Your task to perform on an android device: turn on location history Image 0: 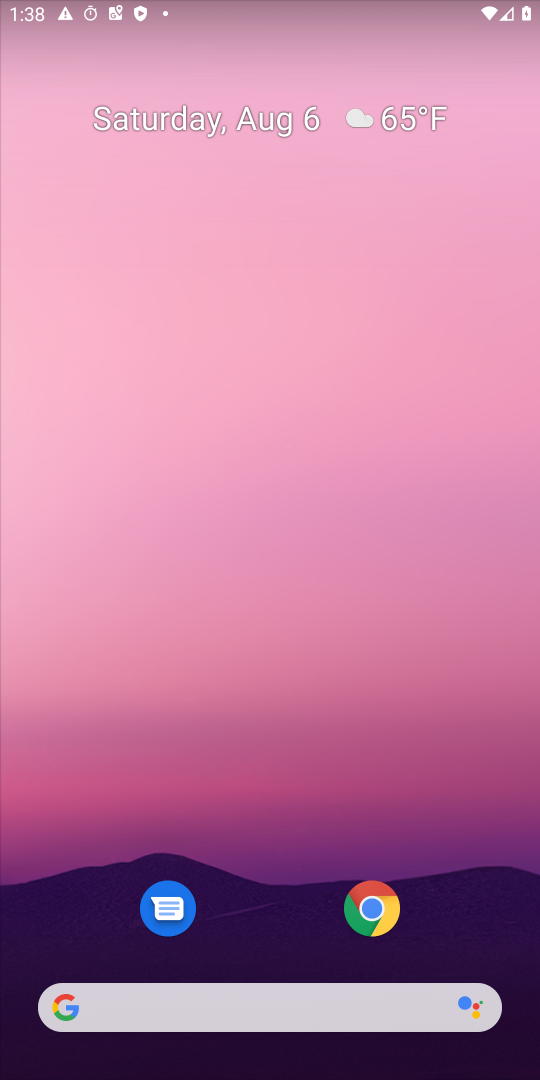
Step 0: drag from (259, 874) to (256, 114)
Your task to perform on an android device: turn on location history Image 1: 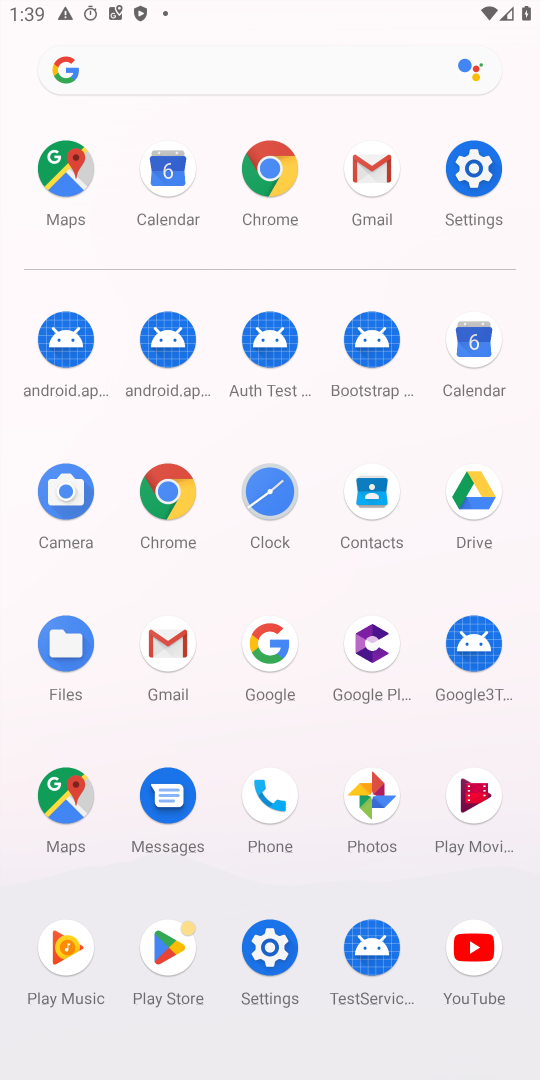
Step 1: click (266, 953)
Your task to perform on an android device: turn on location history Image 2: 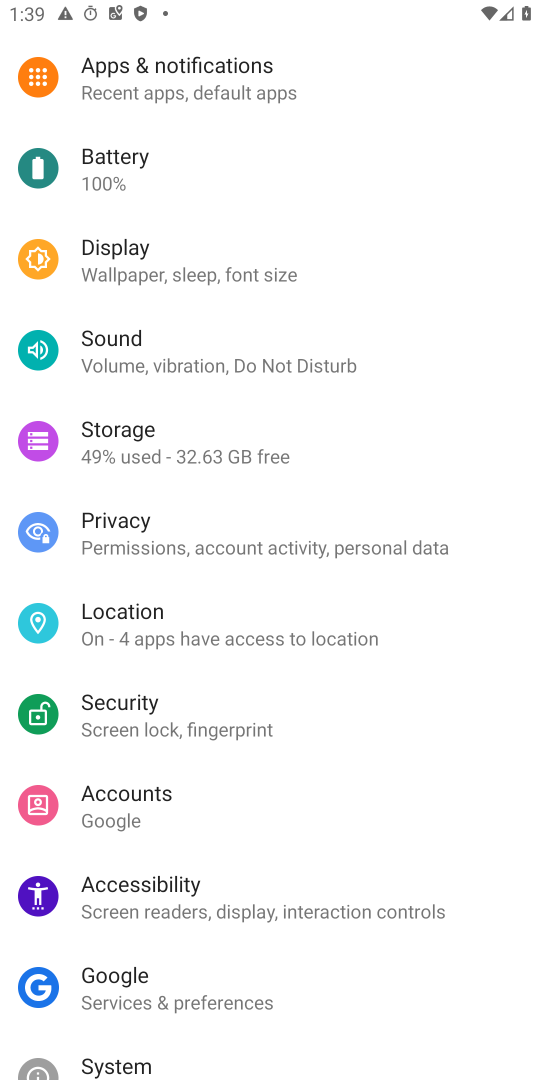
Step 2: click (137, 638)
Your task to perform on an android device: turn on location history Image 3: 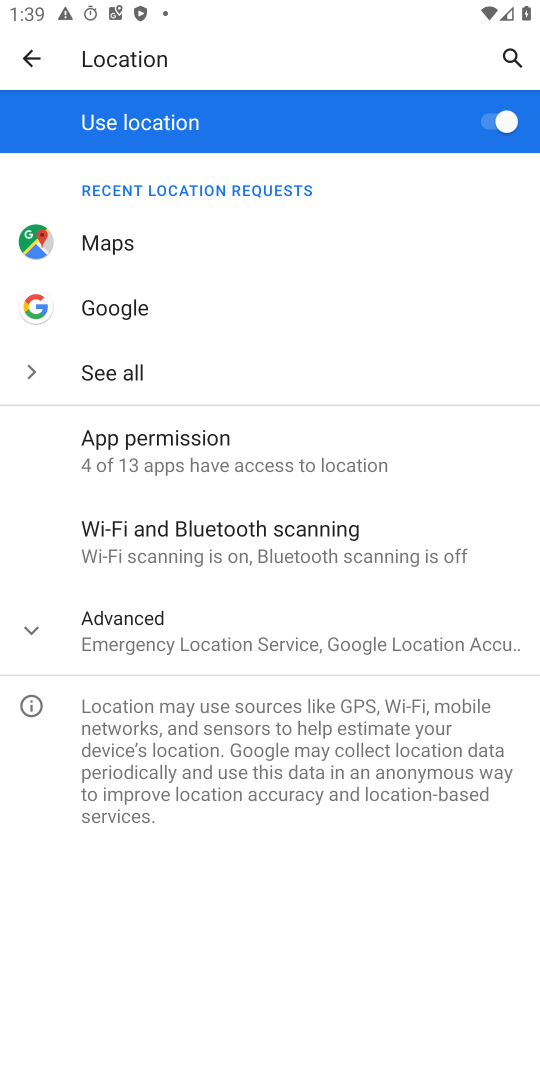
Step 3: click (274, 637)
Your task to perform on an android device: turn on location history Image 4: 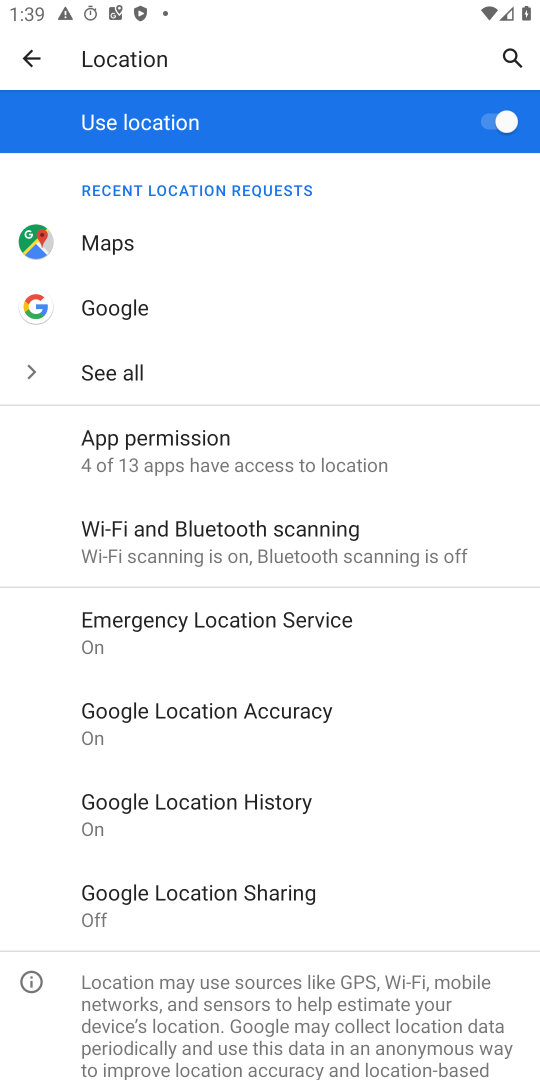
Step 4: click (258, 809)
Your task to perform on an android device: turn on location history Image 5: 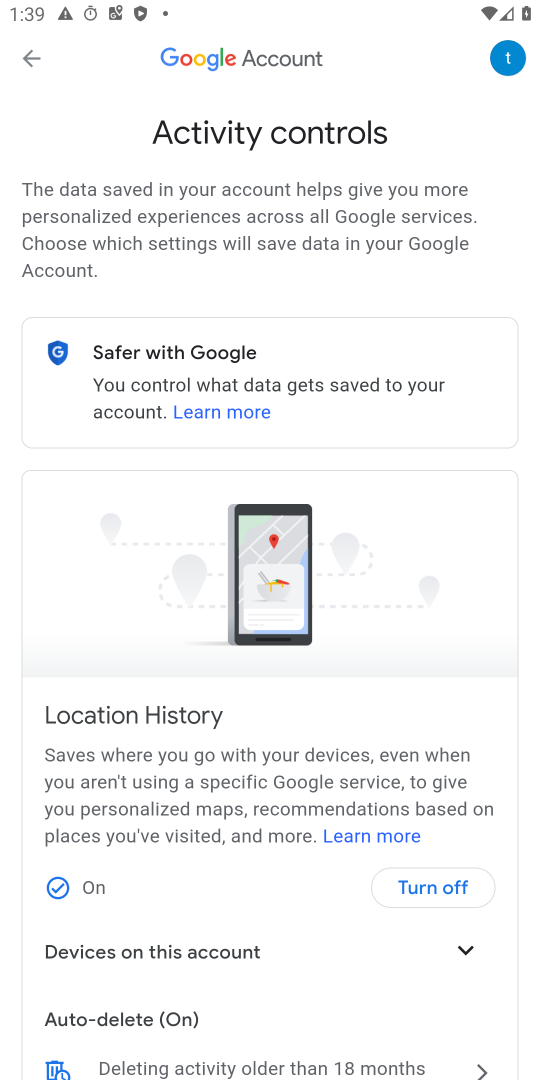
Step 5: task complete